Your task to perform on an android device: open the mobile data screen to see how much data has been used Image 0: 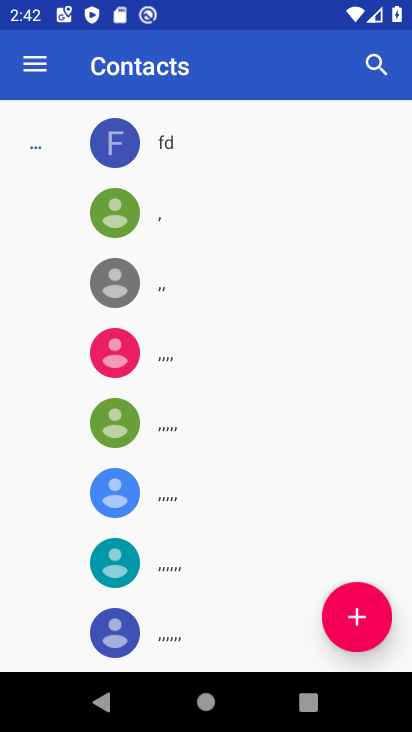
Step 0: press back button
Your task to perform on an android device: open the mobile data screen to see how much data has been used Image 1: 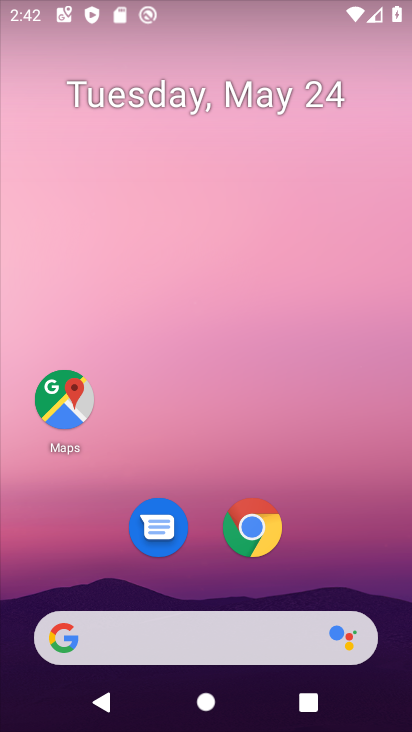
Step 1: drag from (273, 672) to (226, 191)
Your task to perform on an android device: open the mobile data screen to see how much data has been used Image 2: 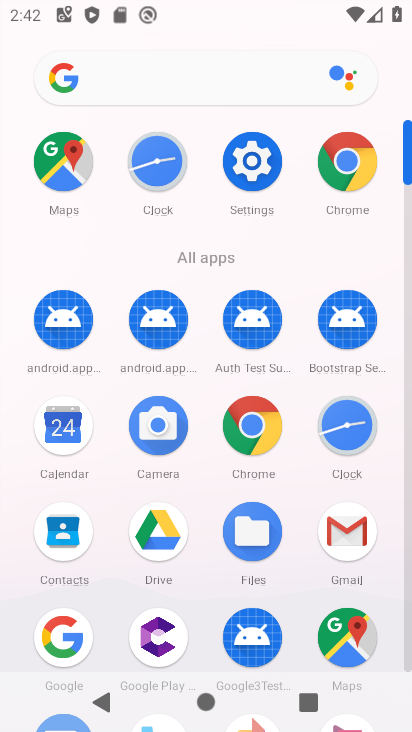
Step 2: click (246, 142)
Your task to perform on an android device: open the mobile data screen to see how much data has been used Image 3: 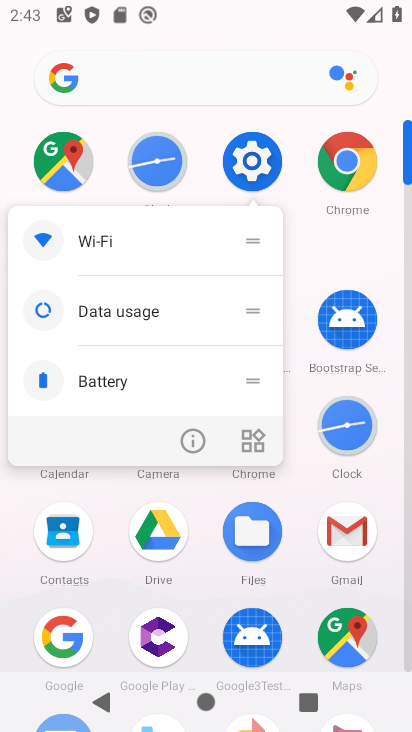
Step 3: click (262, 156)
Your task to perform on an android device: open the mobile data screen to see how much data has been used Image 4: 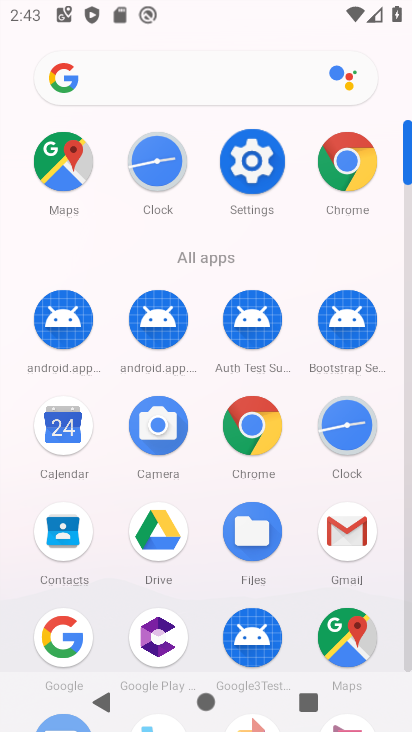
Step 4: click (262, 156)
Your task to perform on an android device: open the mobile data screen to see how much data has been used Image 5: 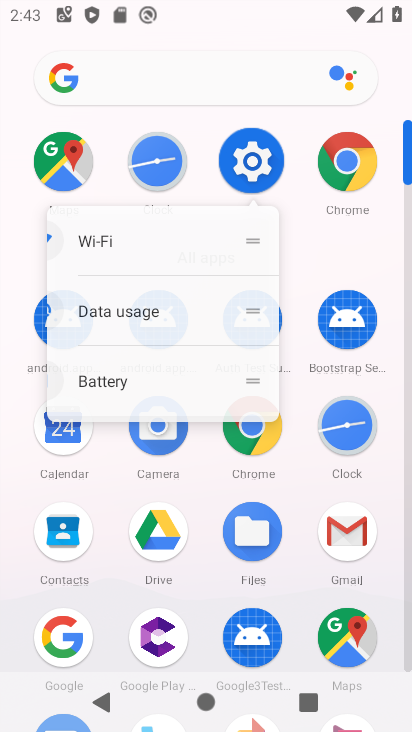
Step 5: click (262, 156)
Your task to perform on an android device: open the mobile data screen to see how much data has been used Image 6: 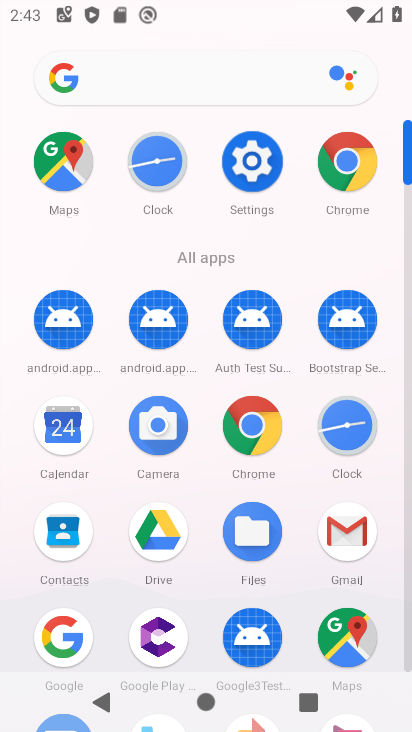
Step 6: click (262, 156)
Your task to perform on an android device: open the mobile data screen to see how much data has been used Image 7: 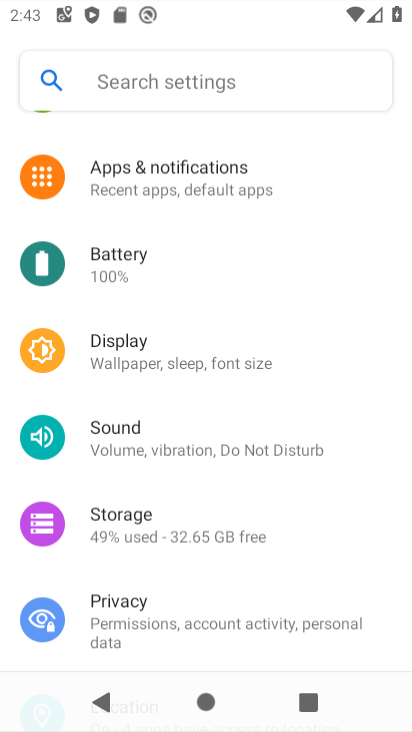
Step 7: click (262, 156)
Your task to perform on an android device: open the mobile data screen to see how much data has been used Image 8: 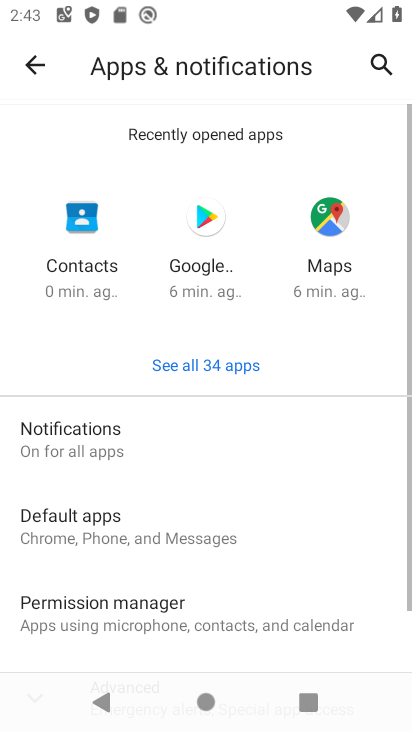
Step 8: click (25, 61)
Your task to perform on an android device: open the mobile data screen to see how much data has been used Image 9: 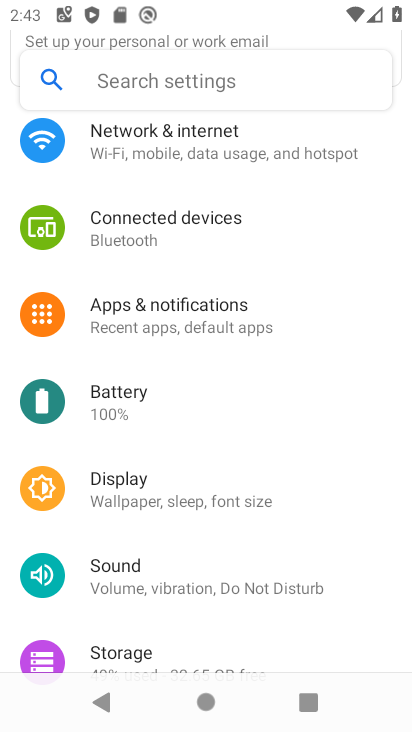
Step 9: click (176, 148)
Your task to perform on an android device: open the mobile data screen to see how much data has been used Image 10: 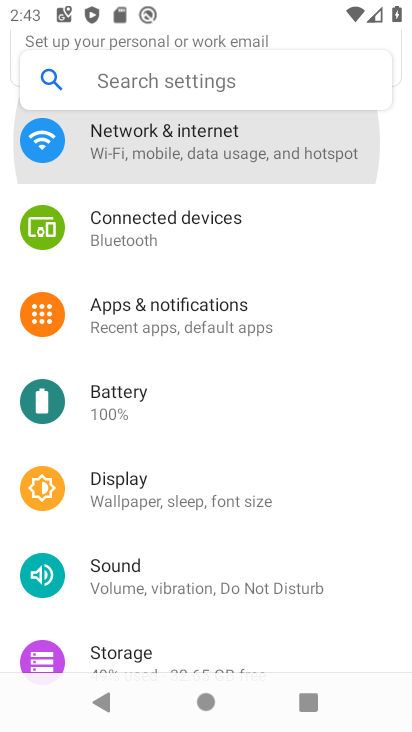
Step 10: click (176, 148)
Your task to perform on an android device: open the mobile data screen to see how much data has been used Image 11: 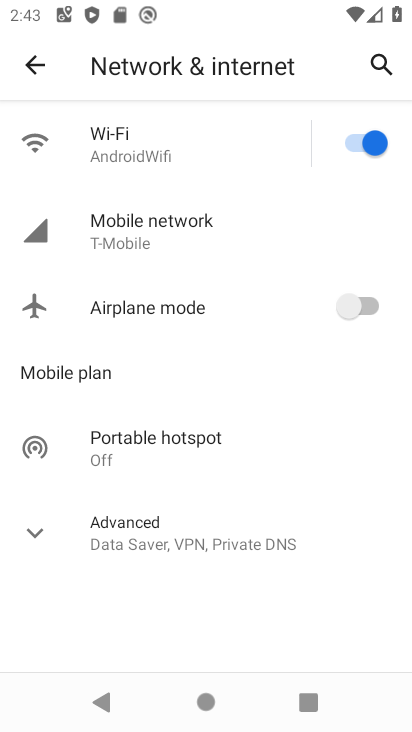
Step 11: task complete